Your task to perform on an android device: Go to Yahoo.com Image 0: 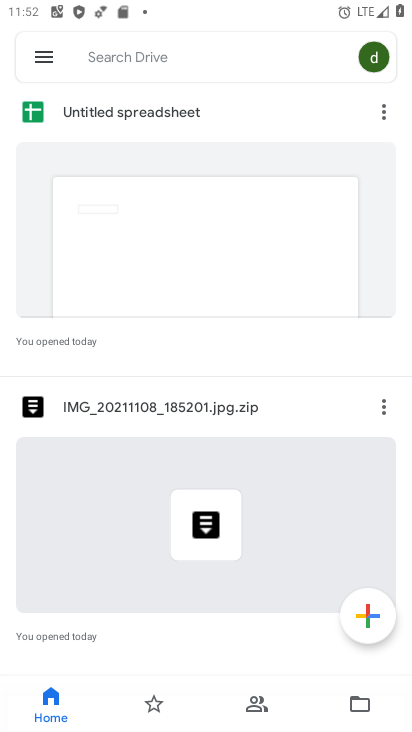
Step 0: press home button
Your task to perform on an android device: Go to Yahoo.com Image 1: 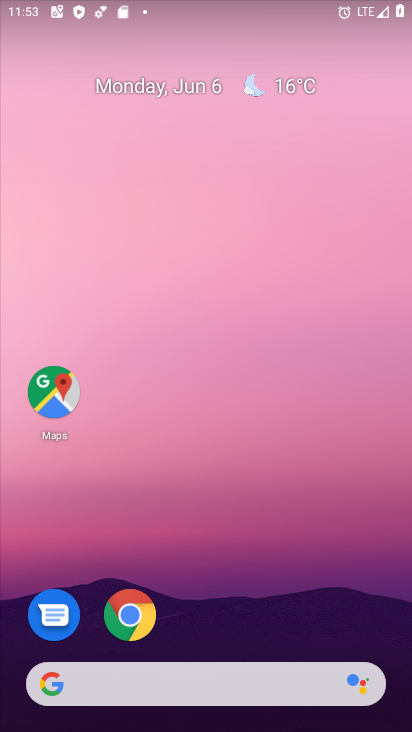
Step 1: click (127, 611)
Your task to perform on an android device: Go to Yahoo.com Image 2: 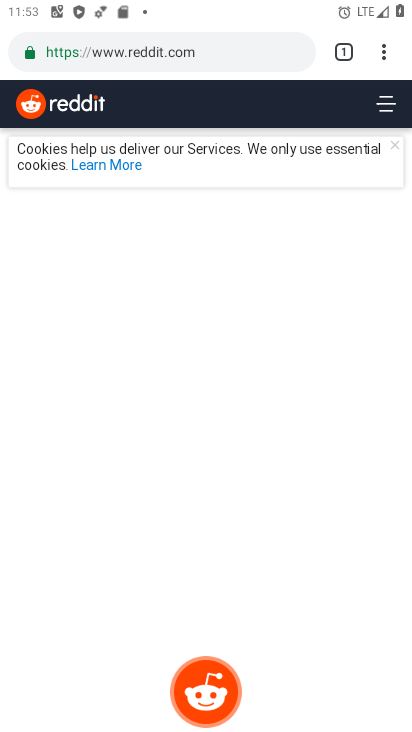
Step 2: click (342, 47)
Your task to perform on an android device: Go to Yahoo.com Image 3: 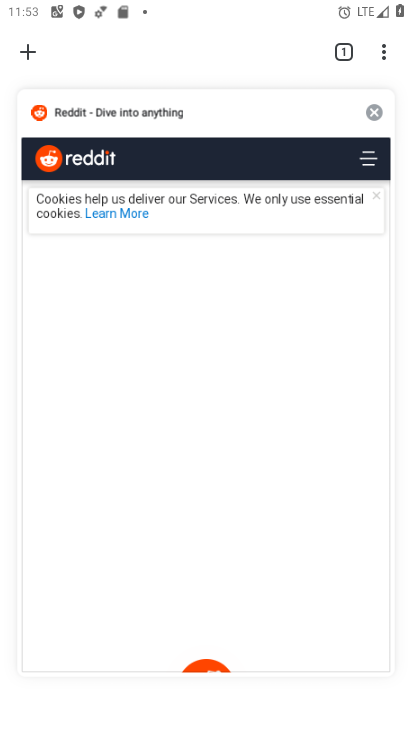
Step 3: click (375, 111)
Your task to perform on an android device: Go to Yahoo.com Image 4: 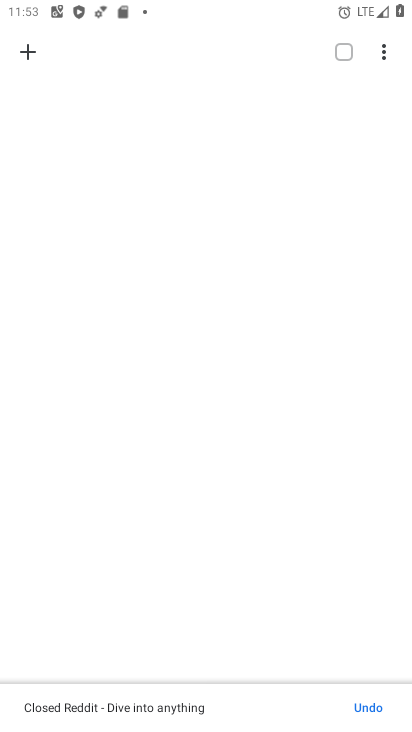
Step 4: click (29, 51)
Your task to perform on an android device: Go to Yahoo.com Image 5: 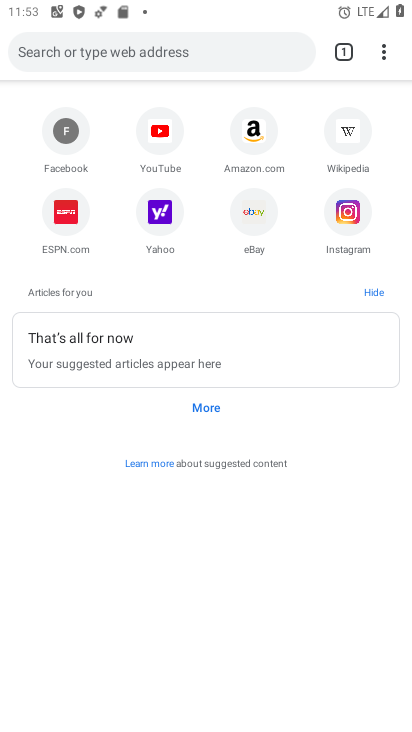
Step 5: click (154, 205)
Your task to perform on an android device: Go to Yahoo.com Image 6: 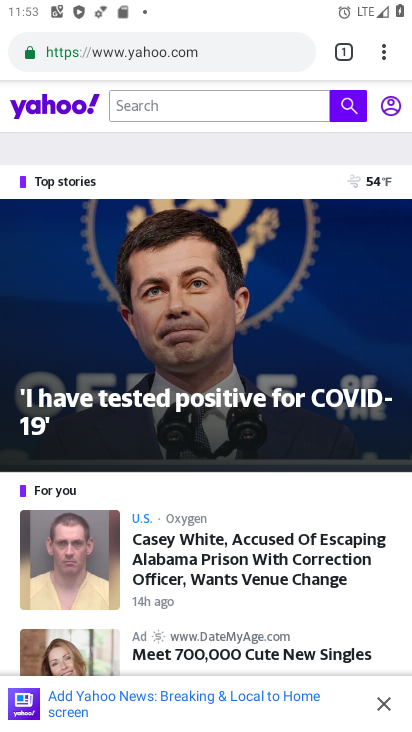
Step 6: task complete